Your task to perform on an android device: Search for seafood restaurants on Google Maps Image 0: 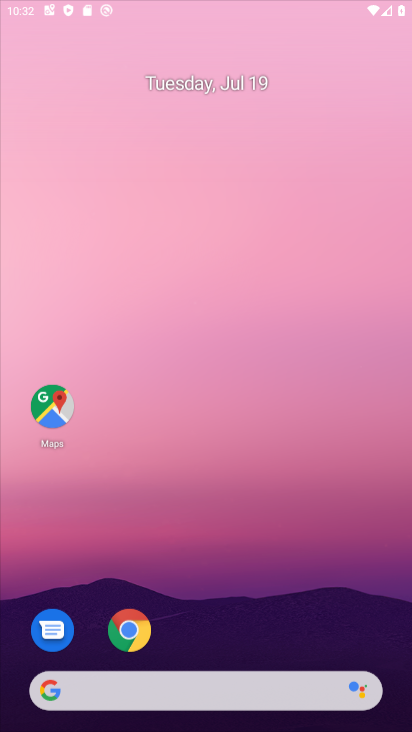
Step 0: press home button
Your task to perform on an android device: Search for seafood restaurants on Google Maps Image 1: 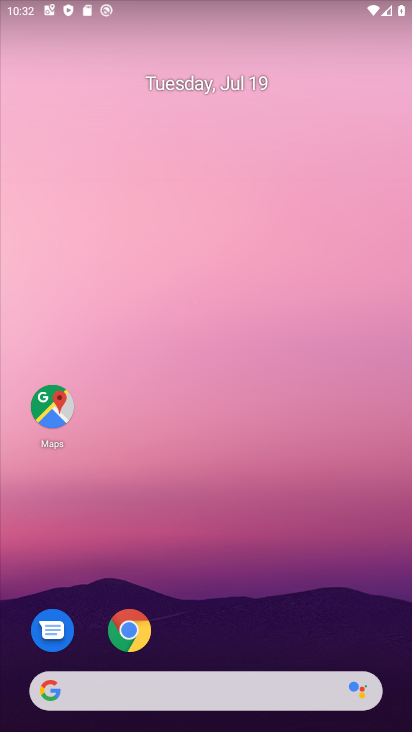
Step 1: click (50, 395)
Your task to perform on an android device: Search for seafood restaurants on Google Maps Image 2: 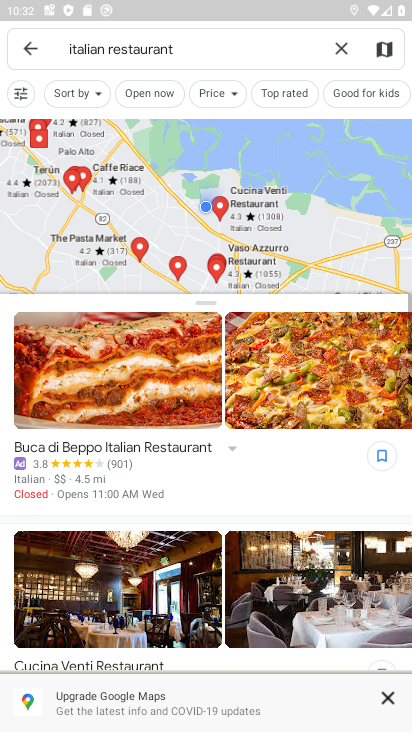
Step 2: click (336, 49)
Your task to perform on an android device: Search for seafood restaurants on Google Maps Image 3: 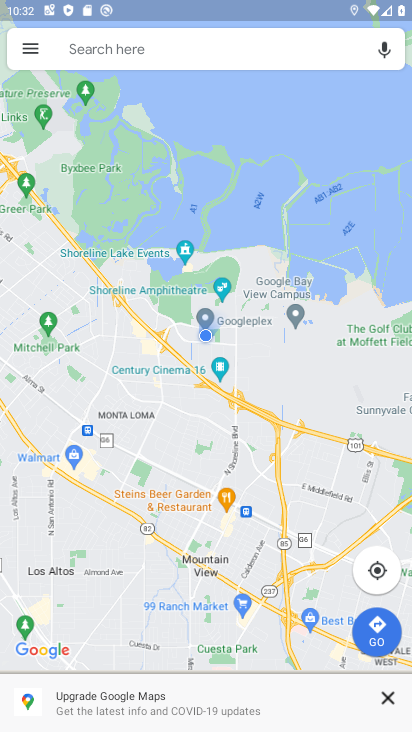
Step 3: click (382, 698)
Your task to perform on an android device: Search for seafood restaurants on Google Maps Image 4: 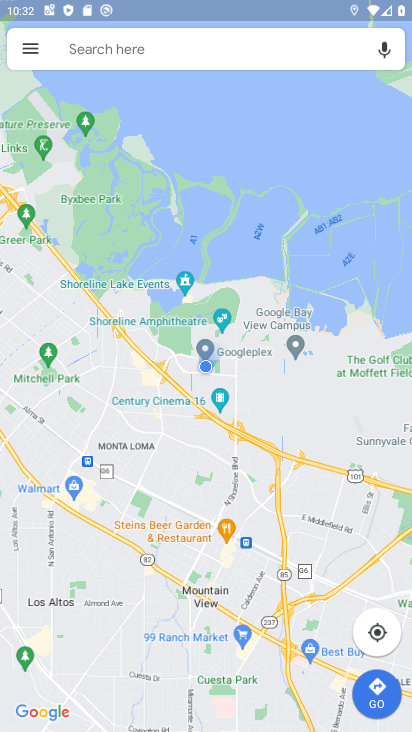
Step 4: click (120, 53)
Your task to perform on an android device: Search for seafood restaurants on Google Maps Image 5: 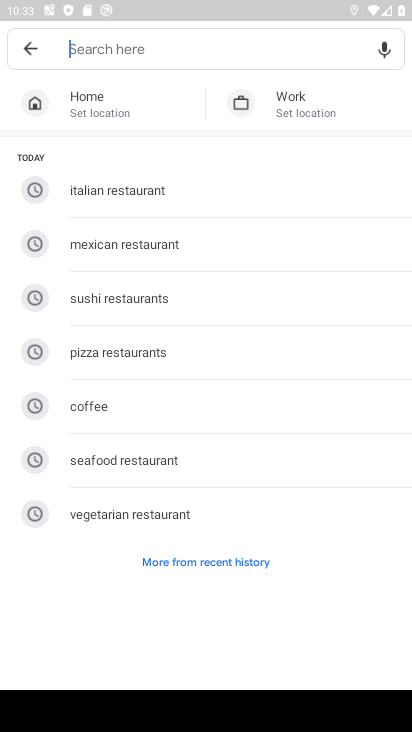
Step 5: click (114, 461)
Your task to perform on an android device: Search for seafood restaurants on Google Maps Image 6: 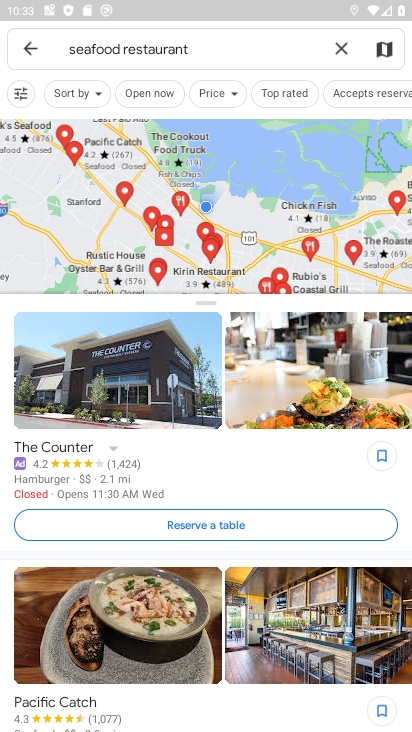
Step 6: task complete